Your task to perform on an android device: turn off airplane mode Image 0: 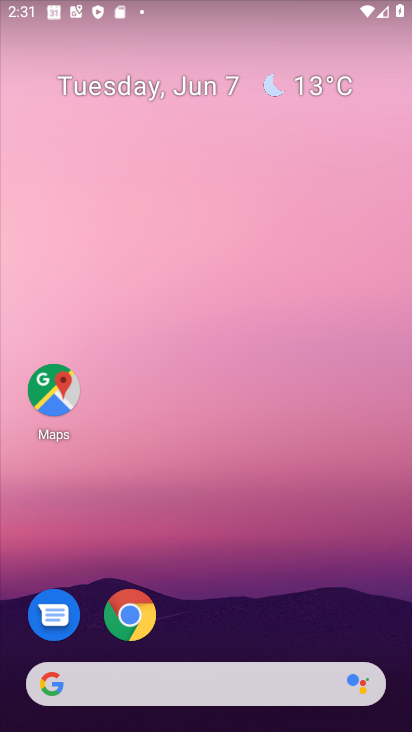
Step 0: drag from (191, 636) to (287, 140)
Your task to perform on an android device: turn off airplane mode Image 1: 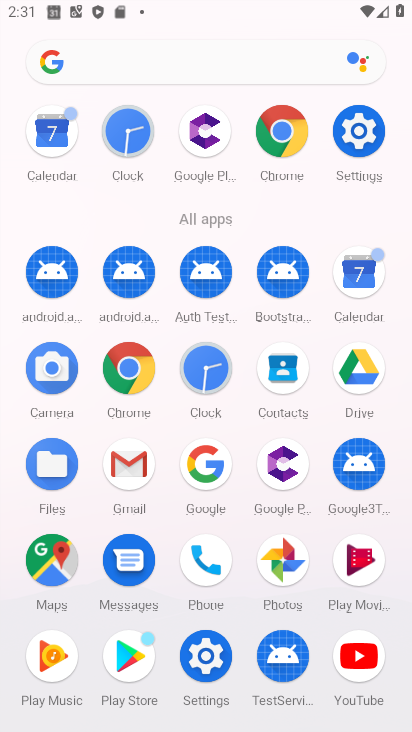
Step 1: click (210, 657)
Your task to perform on an android device: turn off airplane mode Image 2: 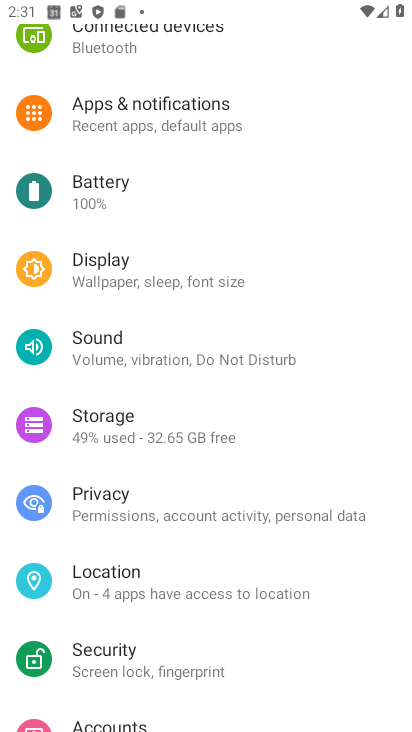
Step 2: drag from (262, 123) to (227, 499)
Your task to perform on an android device: turn off airplane mode Image 3: 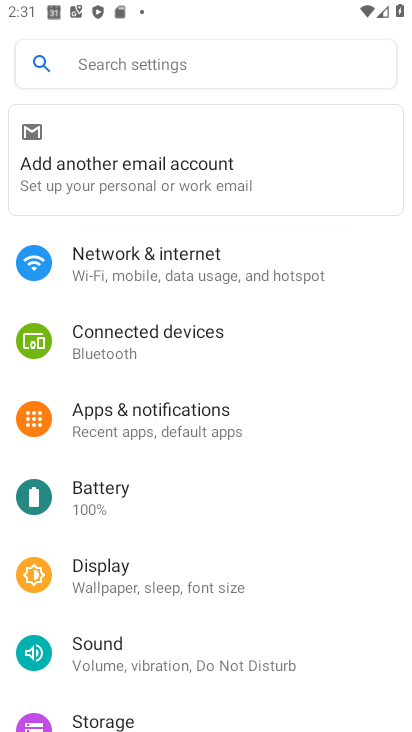
Step 3: click (221, 279)
Your task to perform on an android device: turn off airplane mode Image 4: 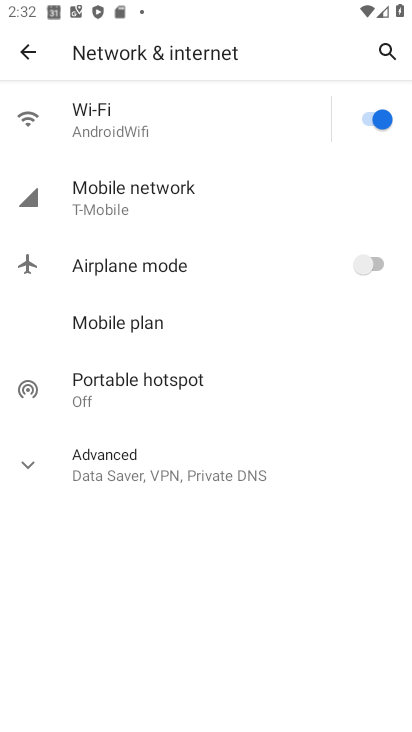
Step 4: task complete